Your task to perform on an android device: turn smart compose on in the gmail app Image 0: 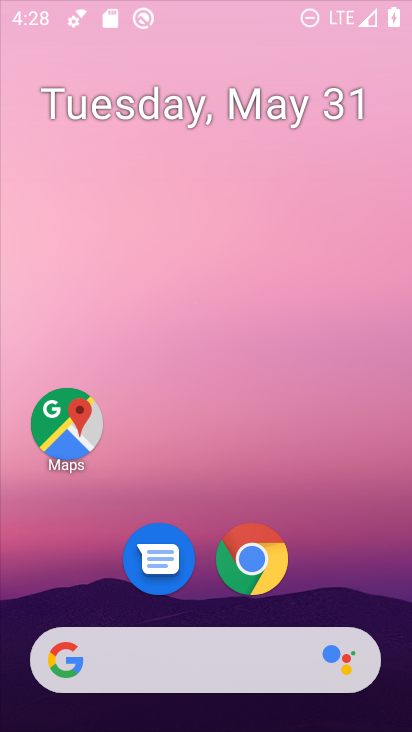
Step 0: drag from (237, 668) to (238, 155)
Your task to perform on an android device: turn smart compose on in the gmail app Image 1: 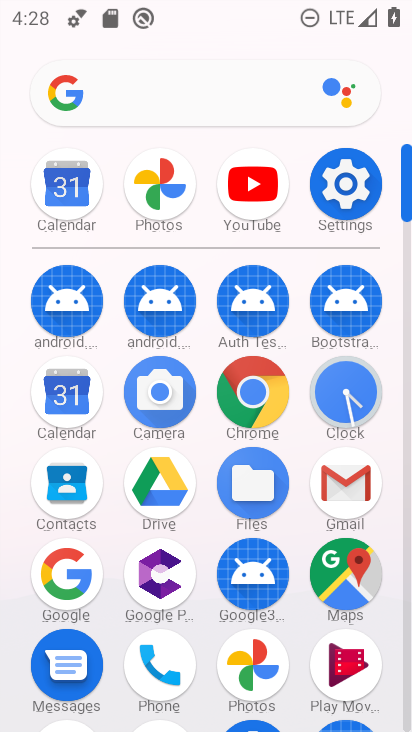
Step 1: click (342, 488)
Your task to perform on an android device: turn smart compose on in the gmail app Image 2: 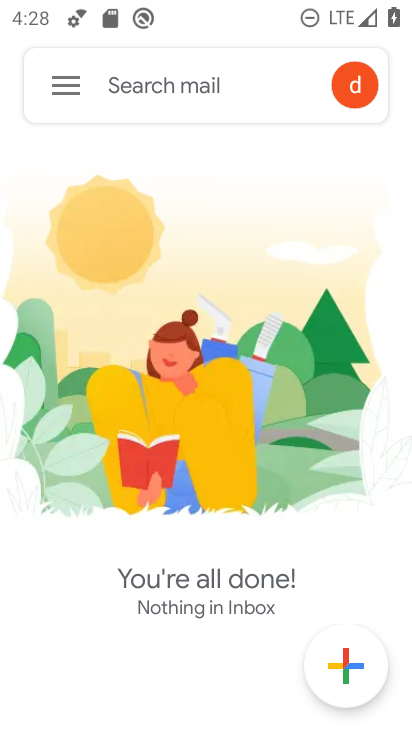
Step 2: click (66, 78)
Your task to perform on an android device: turn smart compose on in the gmail app Image 3: 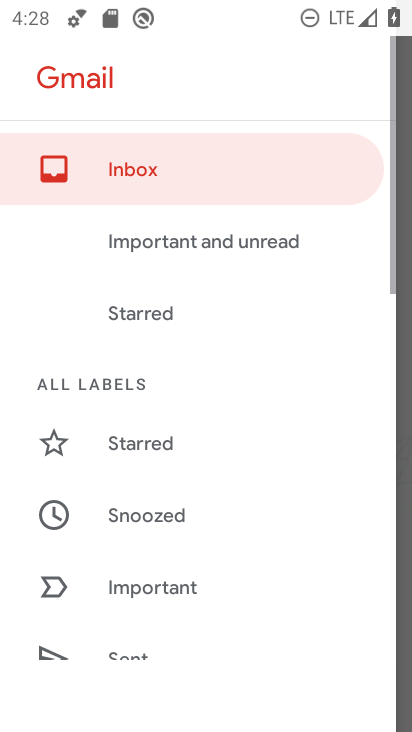
Step 3: drag from (180, 641) to (195, 212)
Your task to perform on an android device: turn smart compose on in the gmail app Image 4: 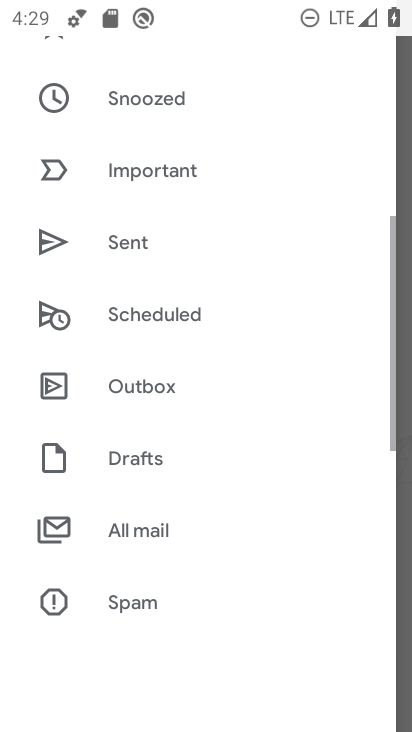
Step 4: drag from (180, 597) to (192, 216)
Your task to perform on an android device: turn smart compose on in the gmail app Image 5: 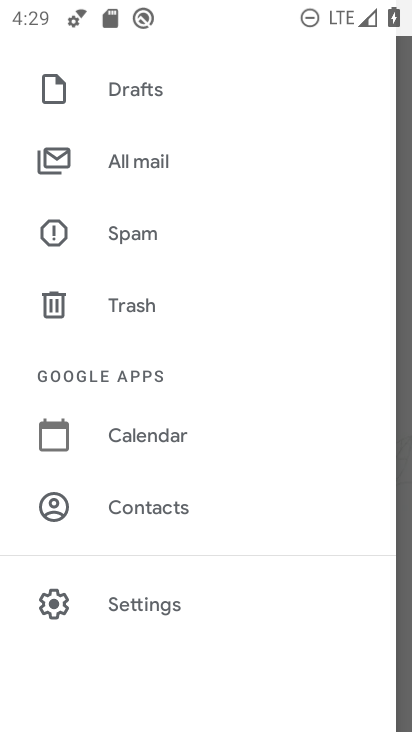
Step 5: click (161, 598)
Your task to perform on an android device: turn smart compose on in the gmail app Image 6: 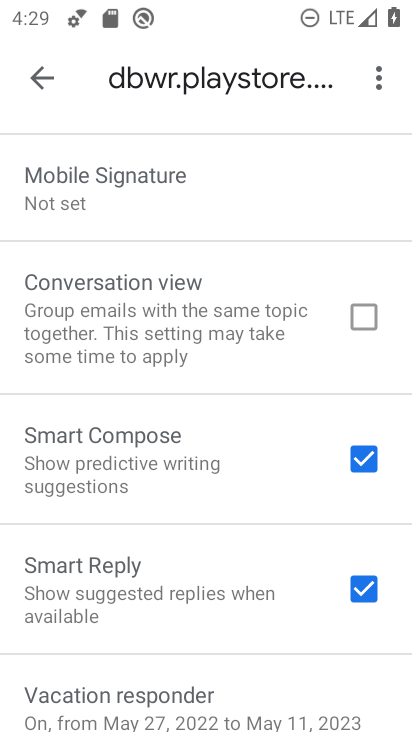
Step 6: task complete